Your task to perform on an android device: turn on wifi Image 0: 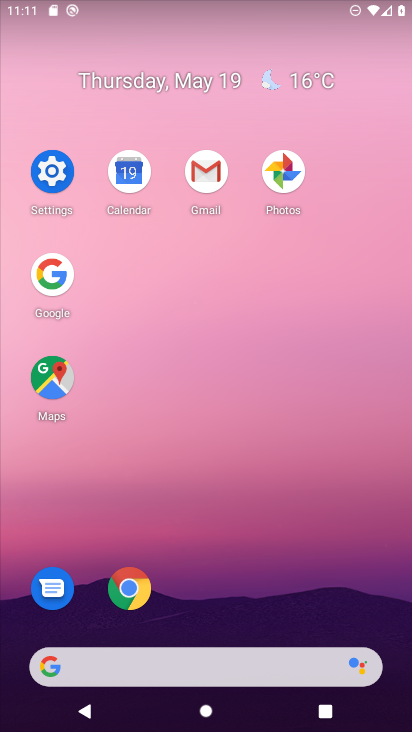
Step 0: click (54, 156)
Your task to perform on an android device: turn on wifi Image 1: 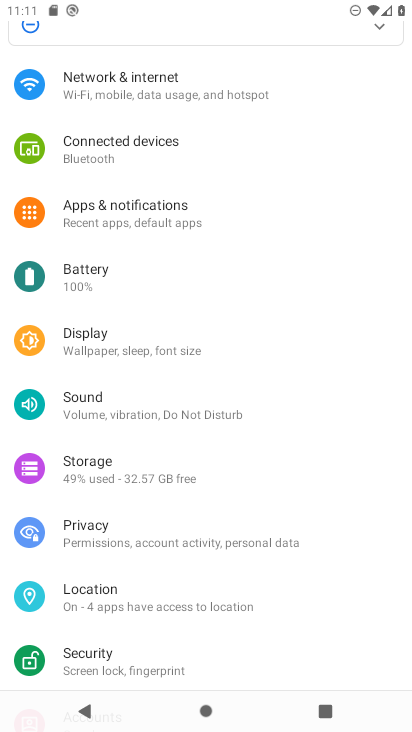
Step 1: click (178, 79)
Your task to perform on an android device: turn on wifi Image 2: 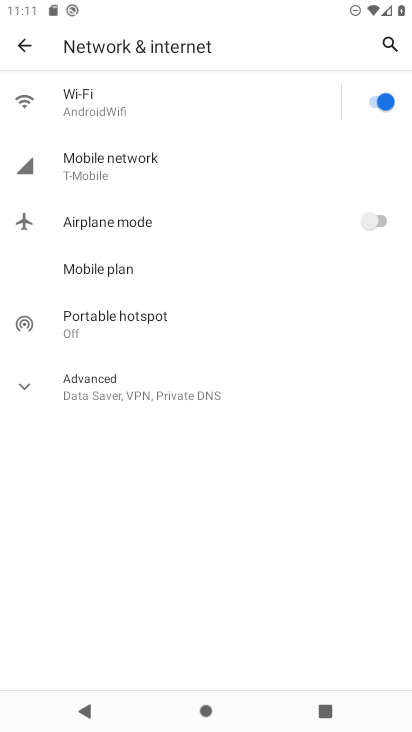
Step 2: task complete